Your task to perform on an android device: Play the last video I watched on Youtube Image 0: 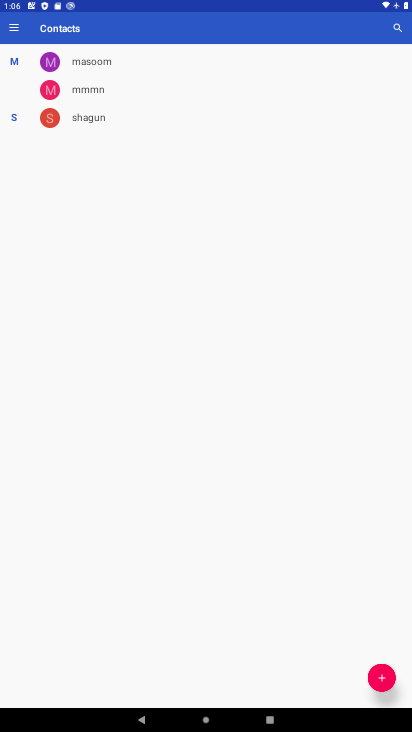
Step 0: press home button
Your task to perform on an android device: Play the last video I watched on Youtube Image 1: 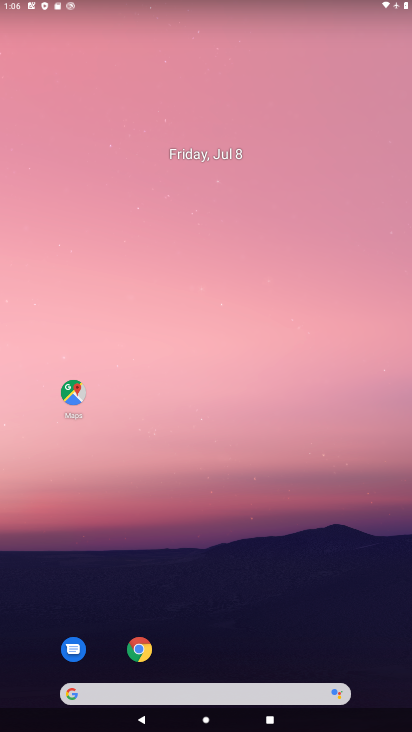
Step 1: drag from (110, 411) to (187, 199)
Your task to perform on an android device: Play the last video I watched on Youtube Image 2: 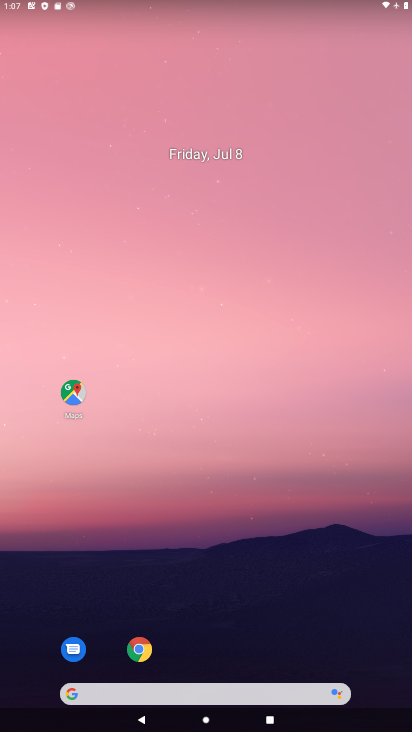
Step 2: drag from (25, 678) to (220, 88)
Your task to perform on an android device: Play the last video I watched on Youtube Image 3: 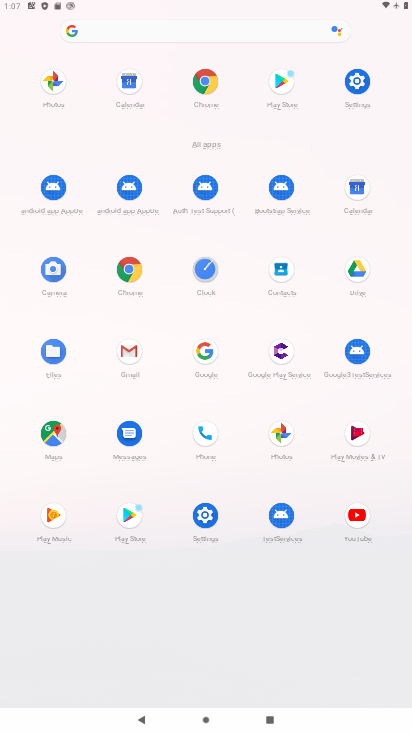
Step 3: click (355, 511)
Your task to perform on an android device: Play the last video I watched on Youtube Image 4: 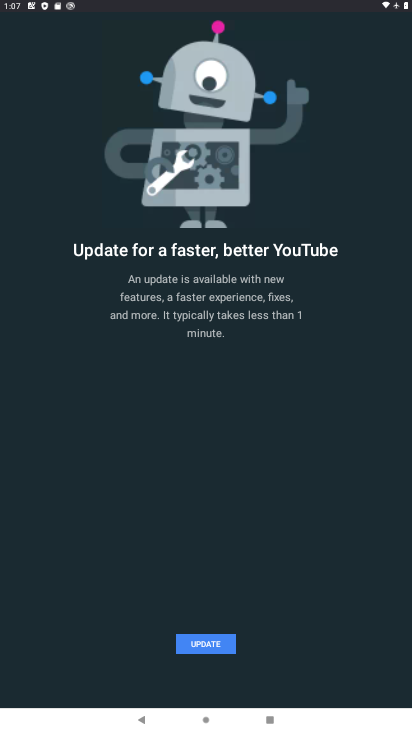
Step 4: click (199, 648)
Your task to perform on an android device: Play the last video I watched on Youtube Image 5: 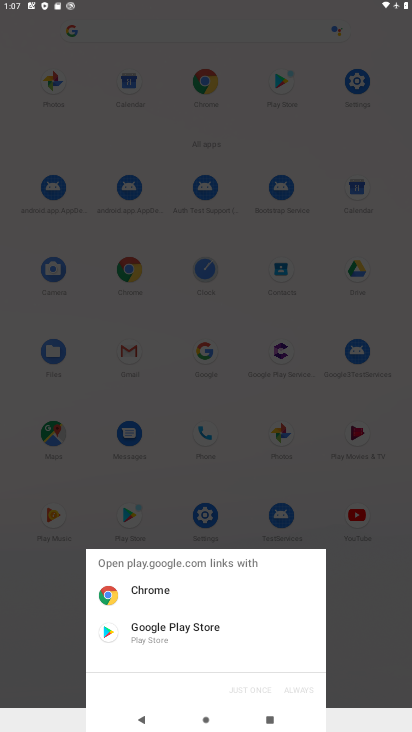
Step 5: click (163, 627)
Your task to perform on an android device: Play the last video I watched on Youtube Image 6: 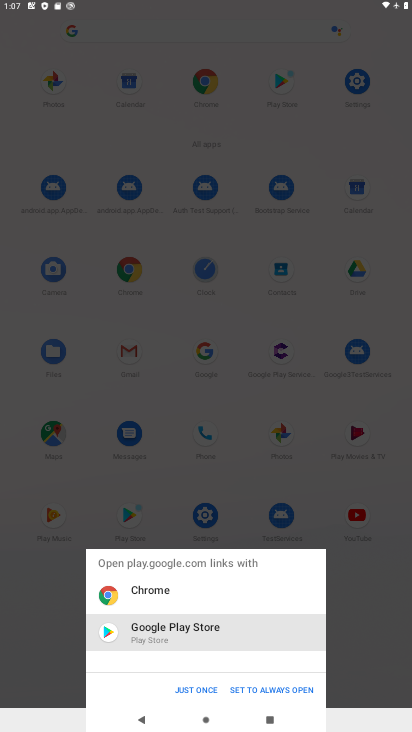
Step 6: click (220, 691)
Your task to perform on an android device: Play the last video I watched on Youtube Image 7: 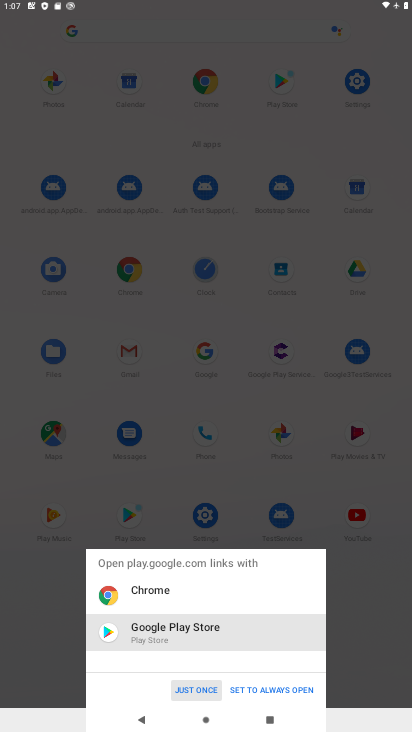
Step 7: click (170, 688)
Your task to perform on an android device: Play the last video I watched on Youtube Image 8: 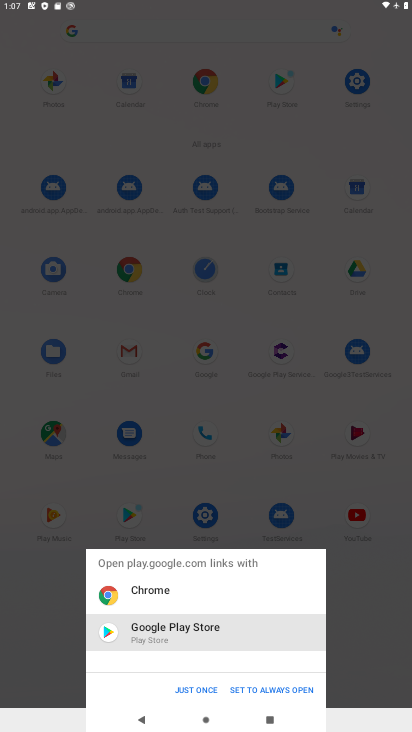
Step 8: click (216, 685)
Your task to perform on an android device: Play the last video I watched on Youtube Image 9: 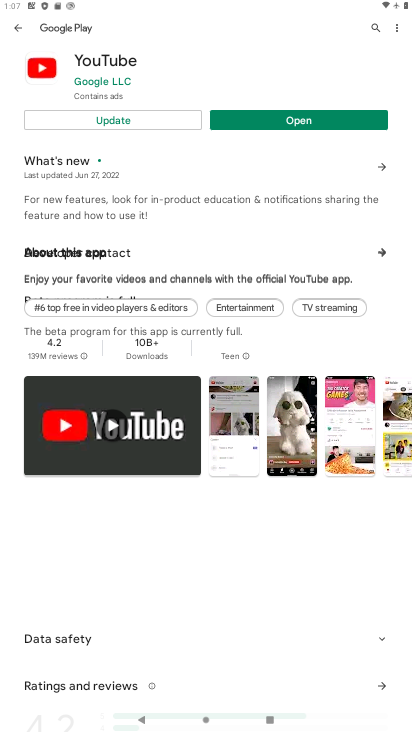
Step 9: click (268, 115)
Your task to perform on an android device: Play the last video I watched on Youtube Image 10: 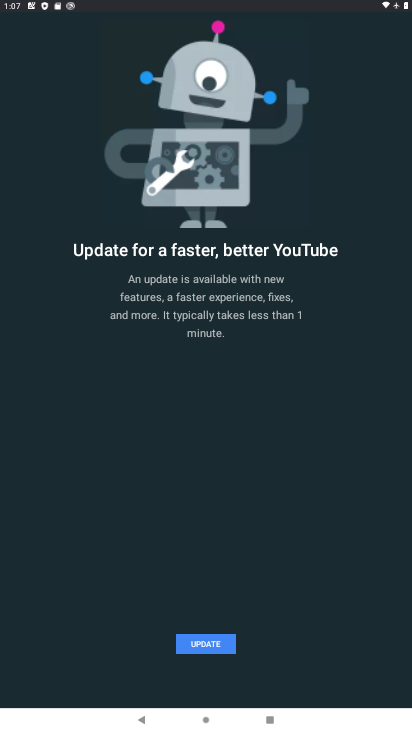
Step 10: task complete